Your task to perform on an android device: When is my next meeting? Image 0: 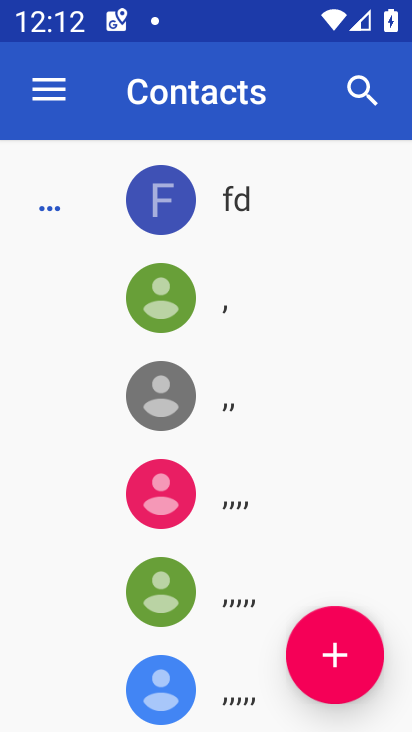
Step 0: press home button
Your task to perform on an android device: When is my next meeting? Image 1: 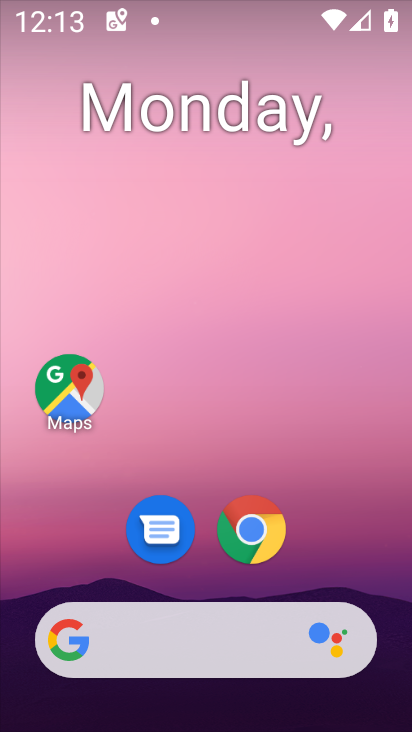
Step 1: drag from (197, 646) to (221, 156)
Your task to perform on an android device: When is my next meeting? Image 2: 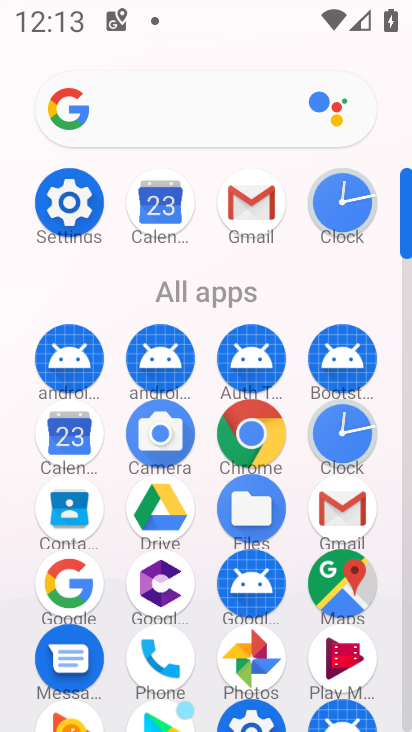
Step 2: click (80, 430)
Your task to perform on an android device: When is my next meeting? Image 3: 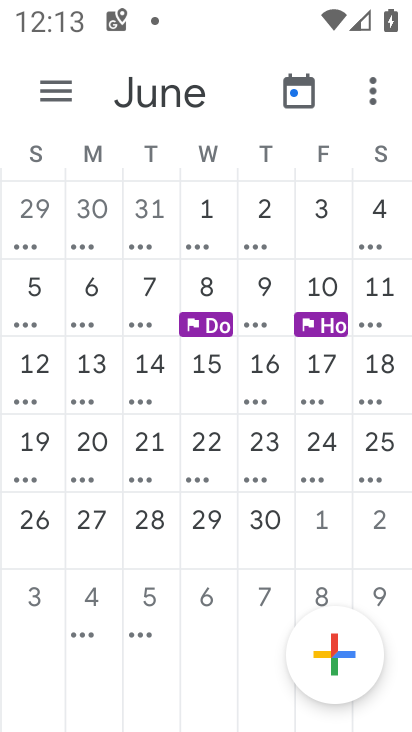
Step 3: click (49, 87)
Your task to perform on an android device: When is my next meeting? Image 4: 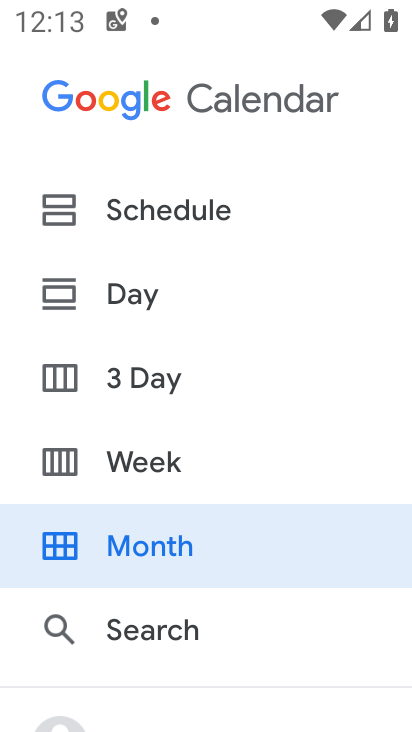
Step 4: click (136, 199)
Your task to perform on an android device: When is my next meeting? Image 5: 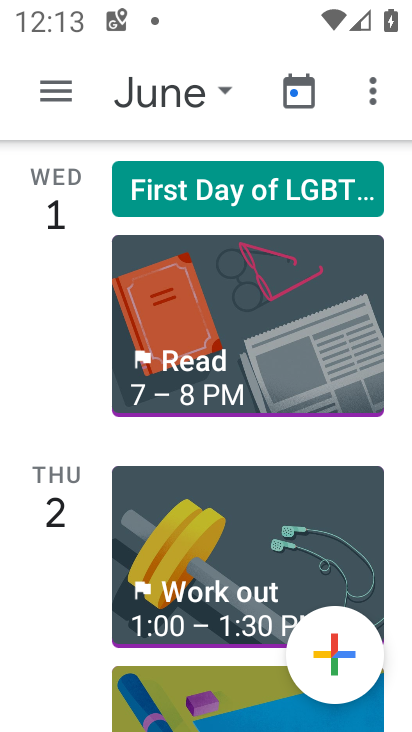
Step 5: click (164, 88)
Your task to perform on an android device: When is my next meeting? Image 6: 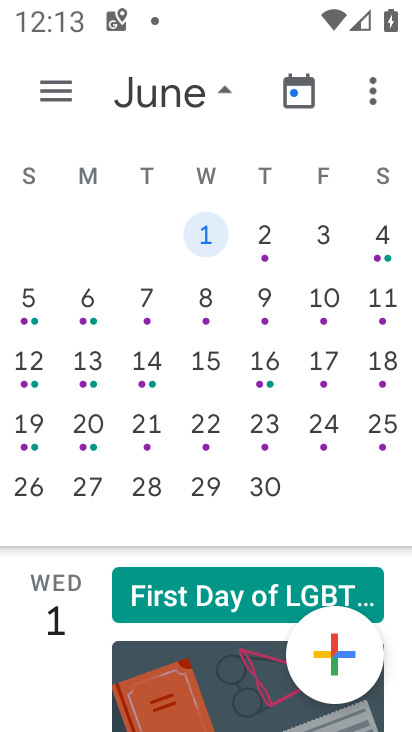
Step 6: drag from (50, 399) to (404, 329)
Your task to perform on an android device: When is my next meeting? Image 7: 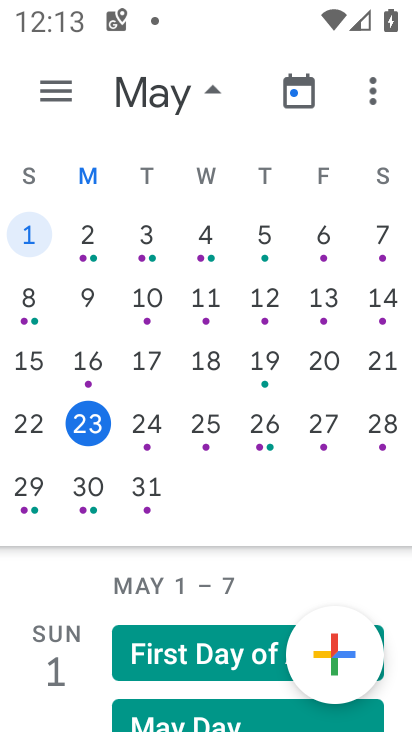
Step 7: click (89, 420)
Your task to perform on an android device: When is my next meeting? Image 8: 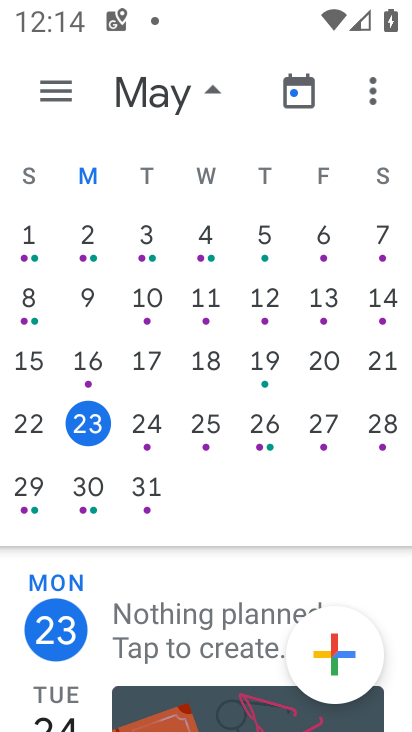
Step 8: click (197, 76)
Your task to perform on an android device: When is my next meeting? Image 9: 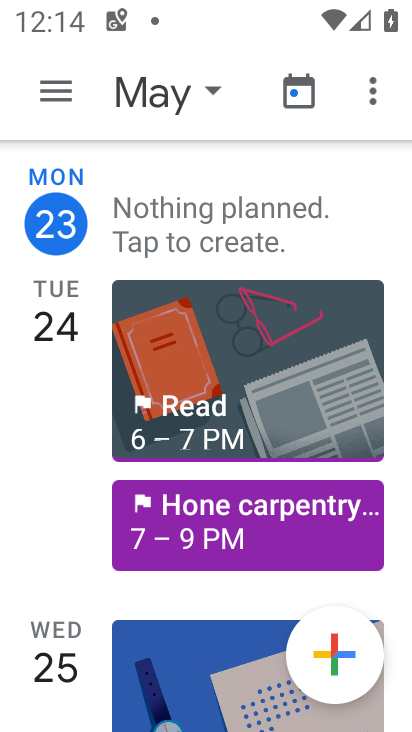
Step 9: task complete